Your task to perform on an android device: Open Youtube and go to the subscriptions tab Image 0: 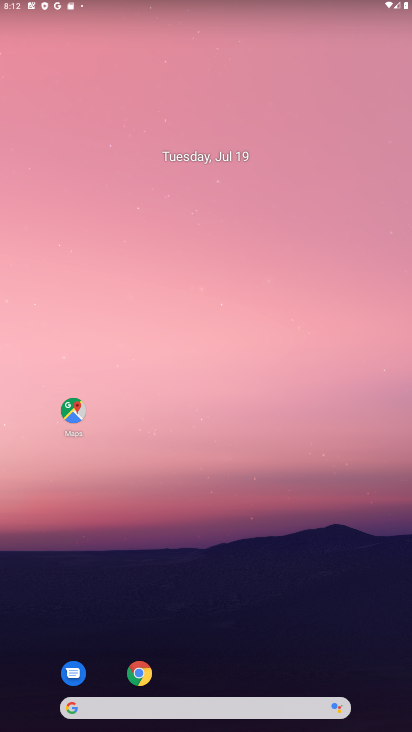
Step 0: drag from (224, 635) to (226, 222)
Your task to perform on an android device: Open Youtube and go to the subscriptions tab Image 1: 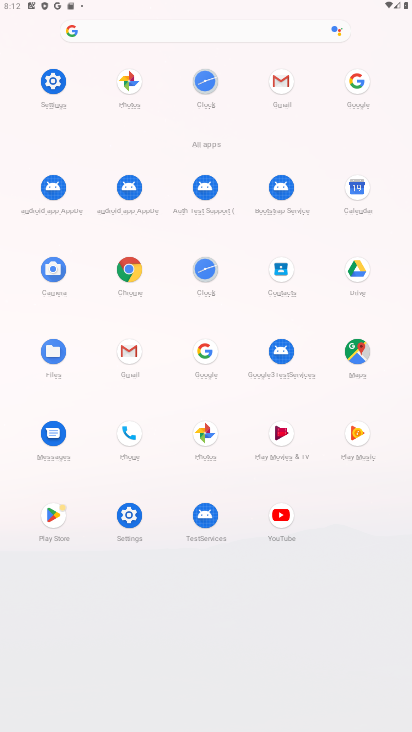
Step 1: click (271, 521)
Your task to perform on an android device: Open Youtube and go to the subscriptions tab Image 2: 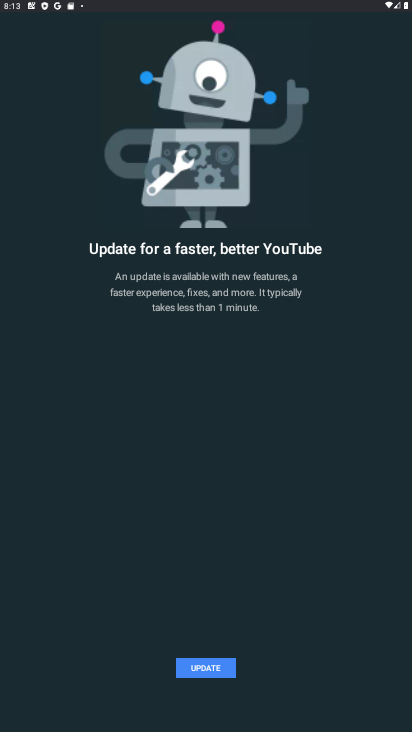
Step 2: click (202, 676)
Your task to perform on an android device: Open Youtube and go to the subscriptions tab Image 3: 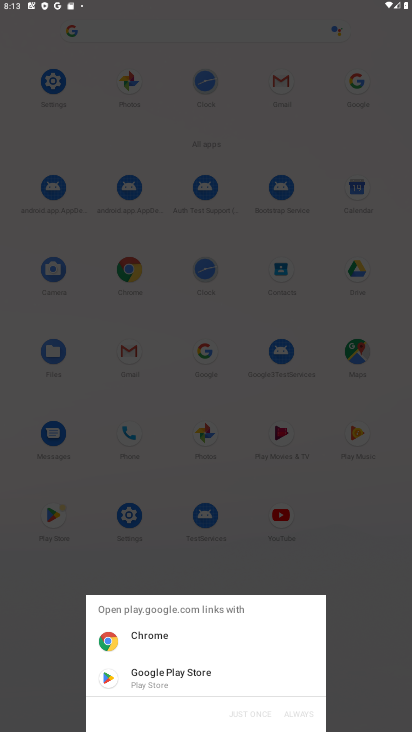
Step 3: click (191, 671)
Your task to perform on an android device: Open Youtube and go to the subscriptions tab Image 4: 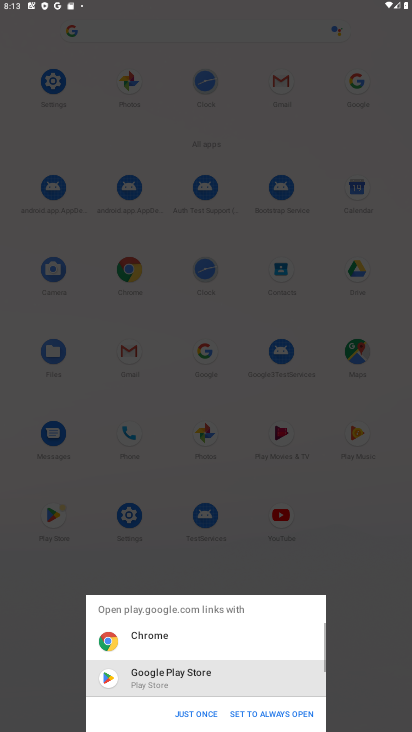
Step 4: click (180, 711)
Your task to perform on an android device: Open Youtube and go to the subscriptions tab Image 5: 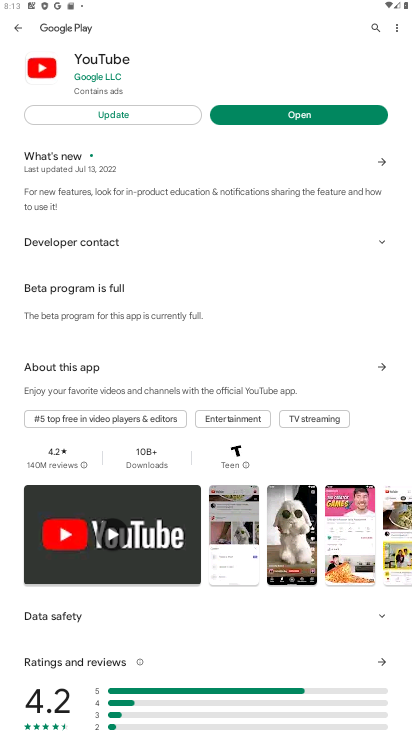
Step 5: click (113, 118)
Your task to perform on an android device: Open Youtube and go to the subscriptions tab Image 6: 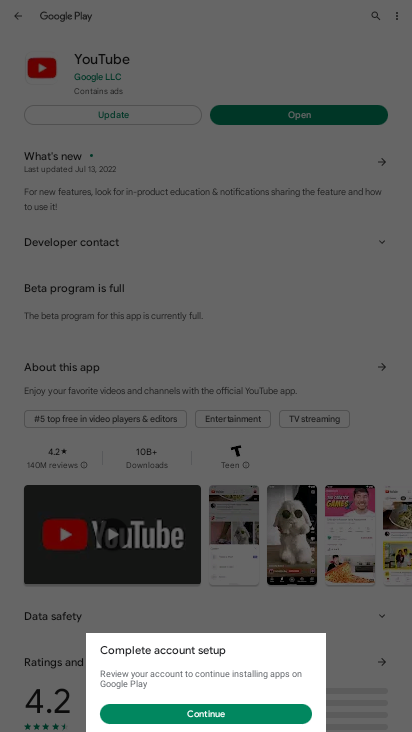
Step 6: click (183, 708)
Your task to perform on an android device: Open Youtube and go to the subscriptions tab Image 7: 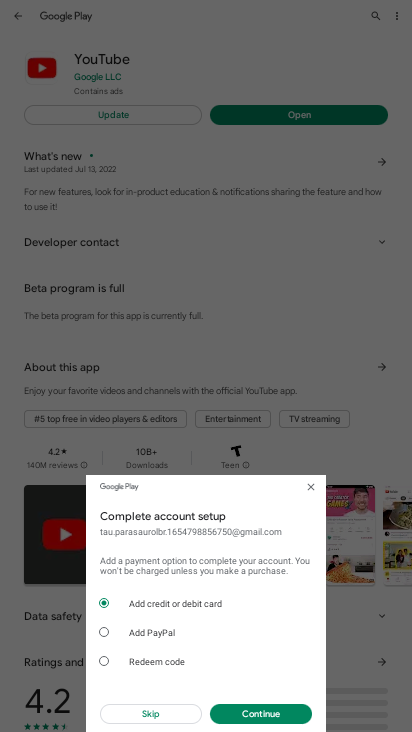
Step 7: click (146, 717)
Your task to perform on an android device: Open Youtube and go to the subscriptions tab Image 8: 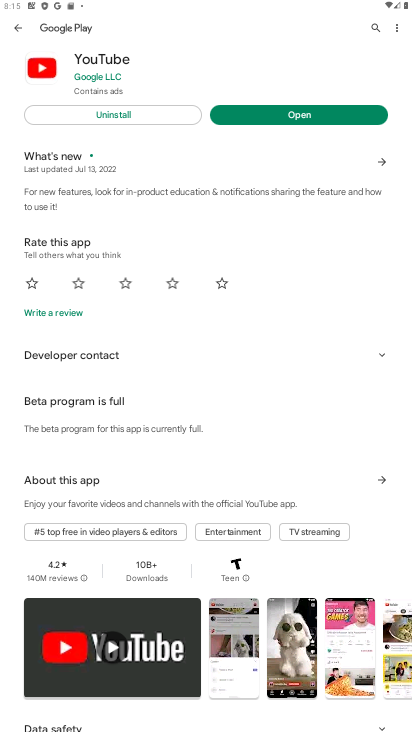
Step 8: click (259, 115)
Your task to perform on an android device: Open Youtube and go to the subscriptions tab Image 9: 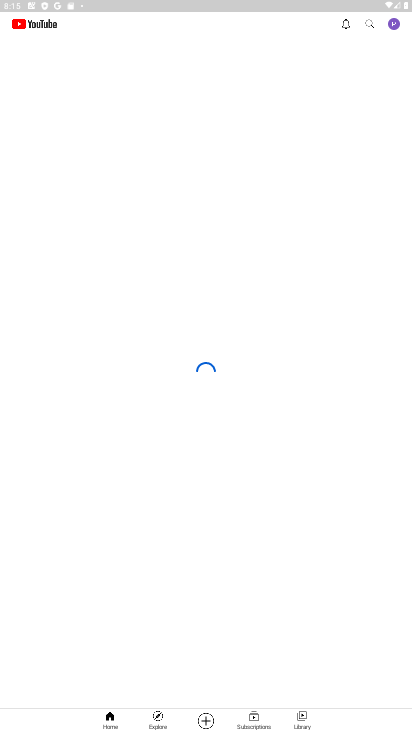
Step 9: task complete